Your task to perform on an android device: Open display settings Image 0: 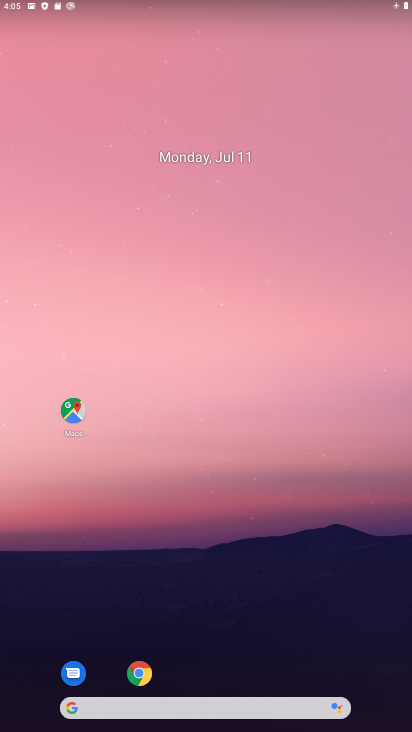
Step 0: drag from (186, 701) to (292, 173)
Your task to perform on an android device: Open display settings Image 1: 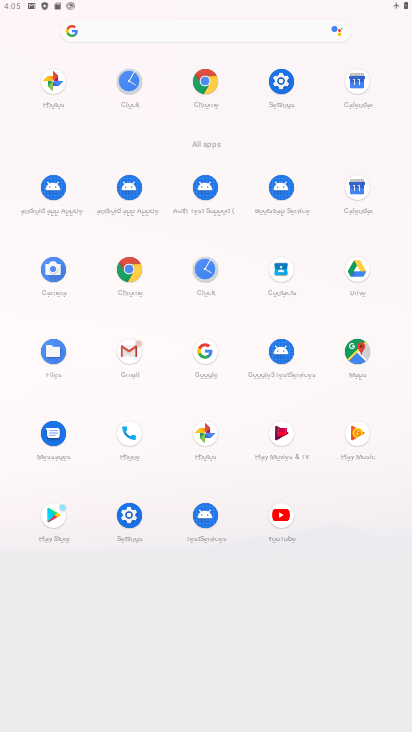
Step 1: click (127, 523)
Your task to perform on an android device: Open display settings Image 2: 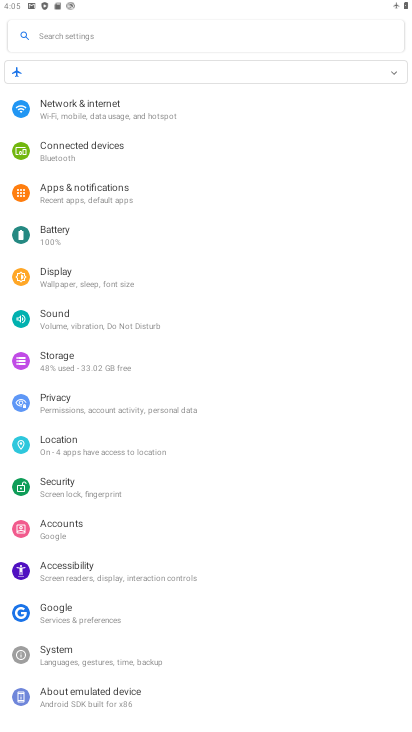
Step 2: click (110, 279)
Your task to perform on an android device: Open display settings Image 3: 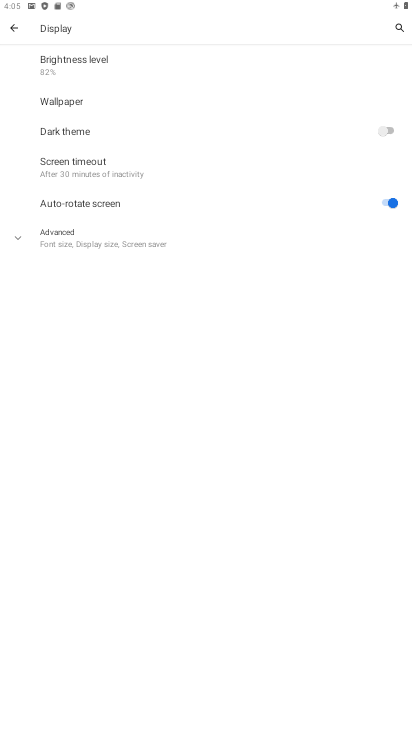
Step 3: task complete